Your task to perform on an android device: Open settings on Google Maps Image 0: 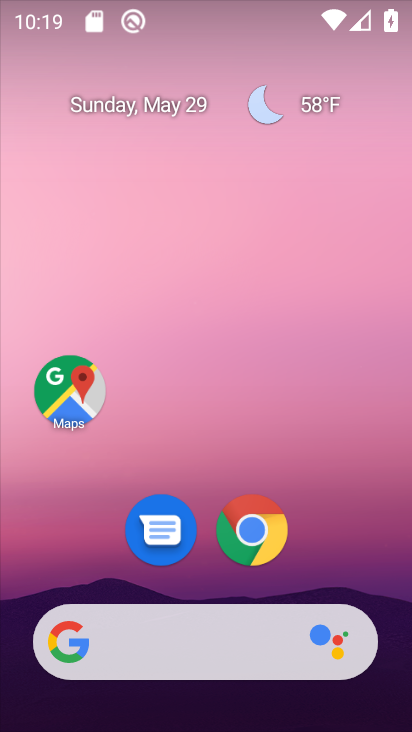
Step 0: click (79, 414)
Your task to perform on an android device: Open settings on Google Maps Image 1: 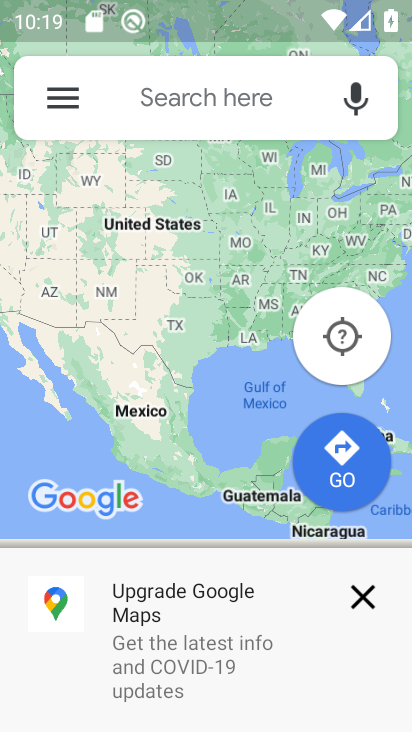
Step 1: click (61, 116)
Your task to perform on an android device: Open settings on Google Maps Image 2: 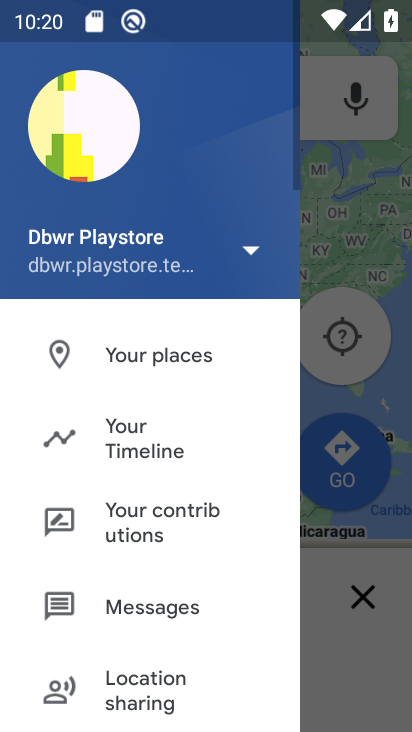
Step 2: drag from (131, 579) to (194, 21)
Your task to perform on an android device: Open settings on Google Maps Image 3: 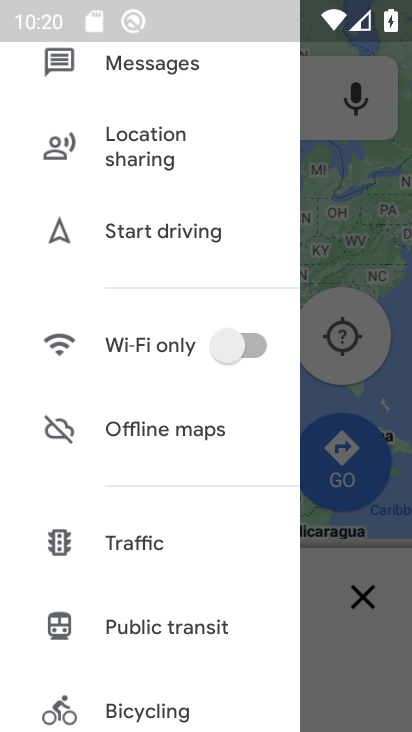
Step 3: drag from (177, 613) to (199, 162)
Your task to perform on an android device: Open settings on Google Maps Image 4: 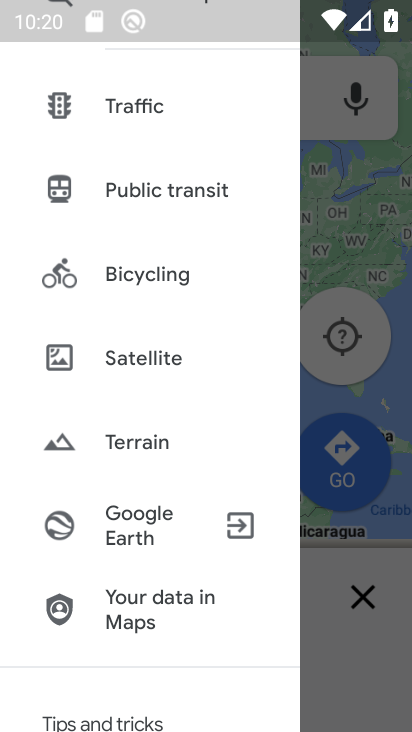
Step 4: drag from (142, 657) to (209, 178)
Your task to perform on an android device: Open settings on Google Maps Image 5: 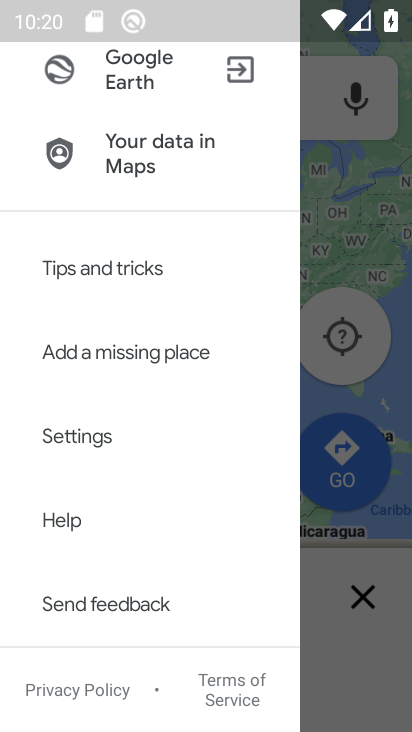
Step 5: click (78, 422)
Your task to perform on an android device: Open settings on Google Maps Image 6: 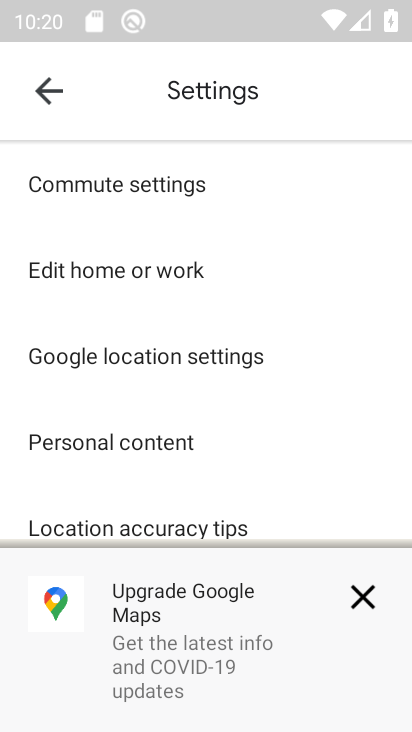
Step 6: task complete